Your task to perform on an android device: Go to location settings Image 0: 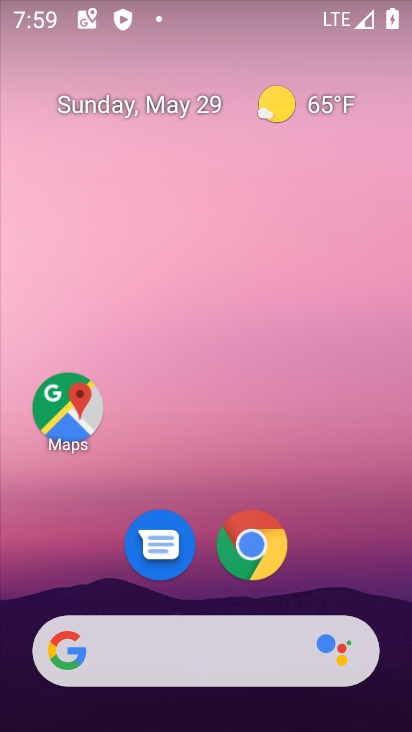
Step 0: drag from (214, 604) to (267, 279)
Your task to perform on an android device: Go to location settings Image 1: 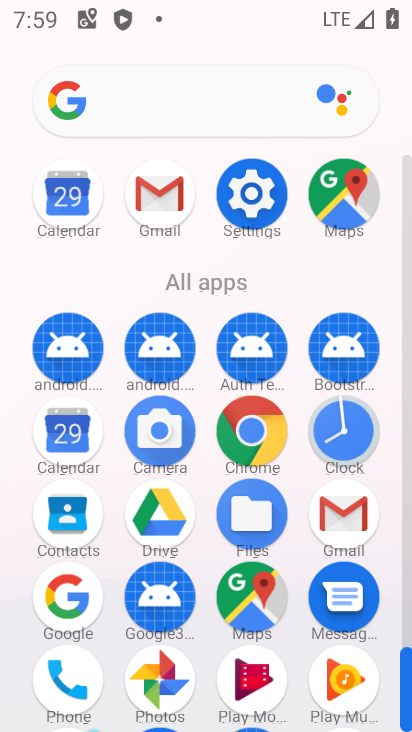
Step 1: click (248, 194)
Your task to perform on an android device: Go to location settings Image 2: 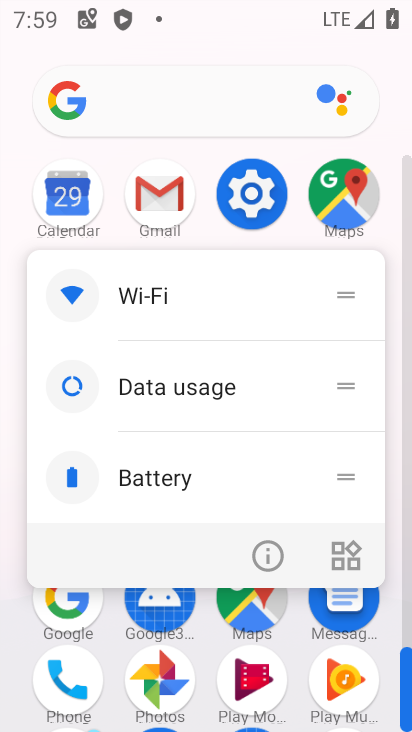
Step 2: click (248, 191)
Your task to perform on an android device: Go to location settings Image 3: 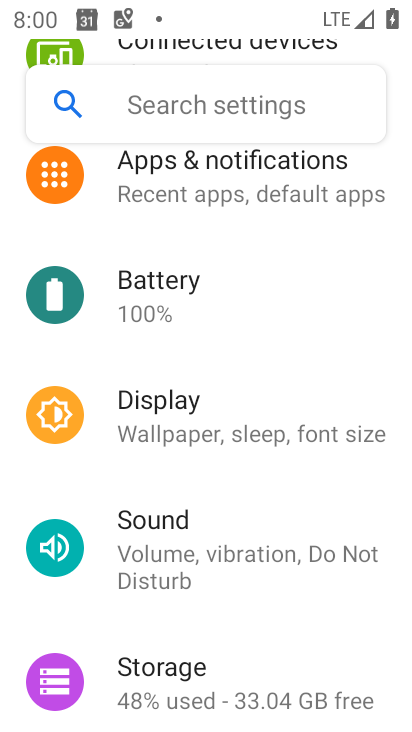
Step 3: drag from (265, 583) to (321, 312)
Your task to perform on an android device: Go to location settings Image 4: 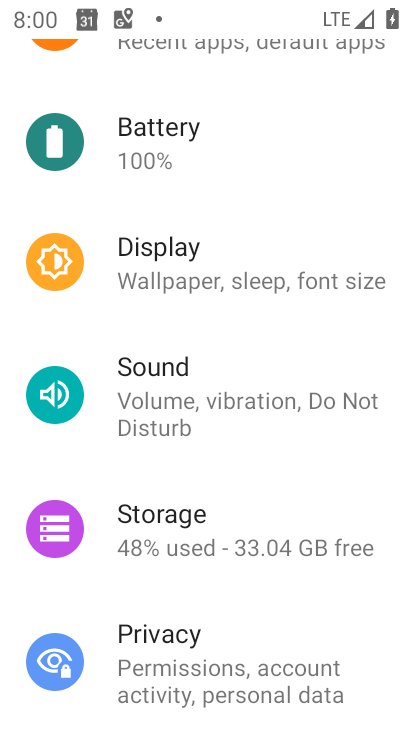
Step 4: drag from (252, 610) to (329, 259)
Your task to perform on an android device: Go to location settings Image 5: 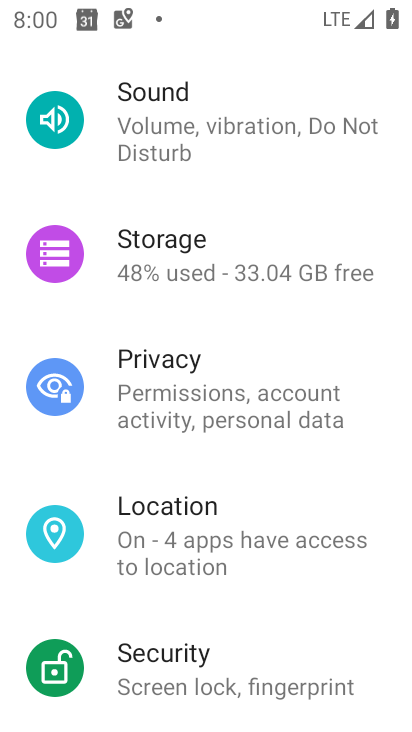
Step 5: click (197, 537)
Your task to perform on an android device: Go to location settings Image 6: 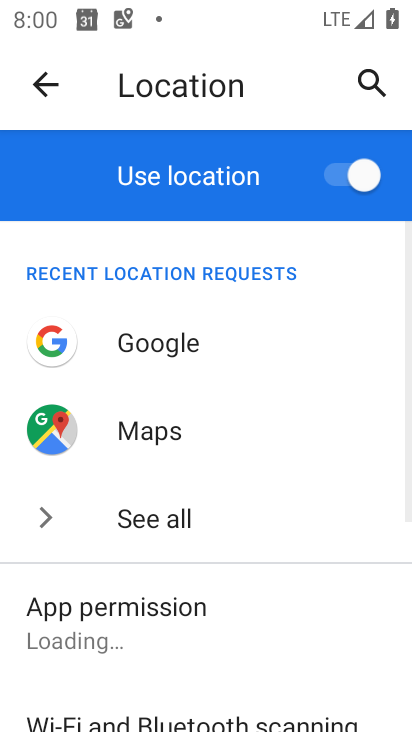
Step 6: task complete